Your task to perform on an android device: Search for usb-c on costco, select the first entry, add it to the cart, then select checkout. Image 0: 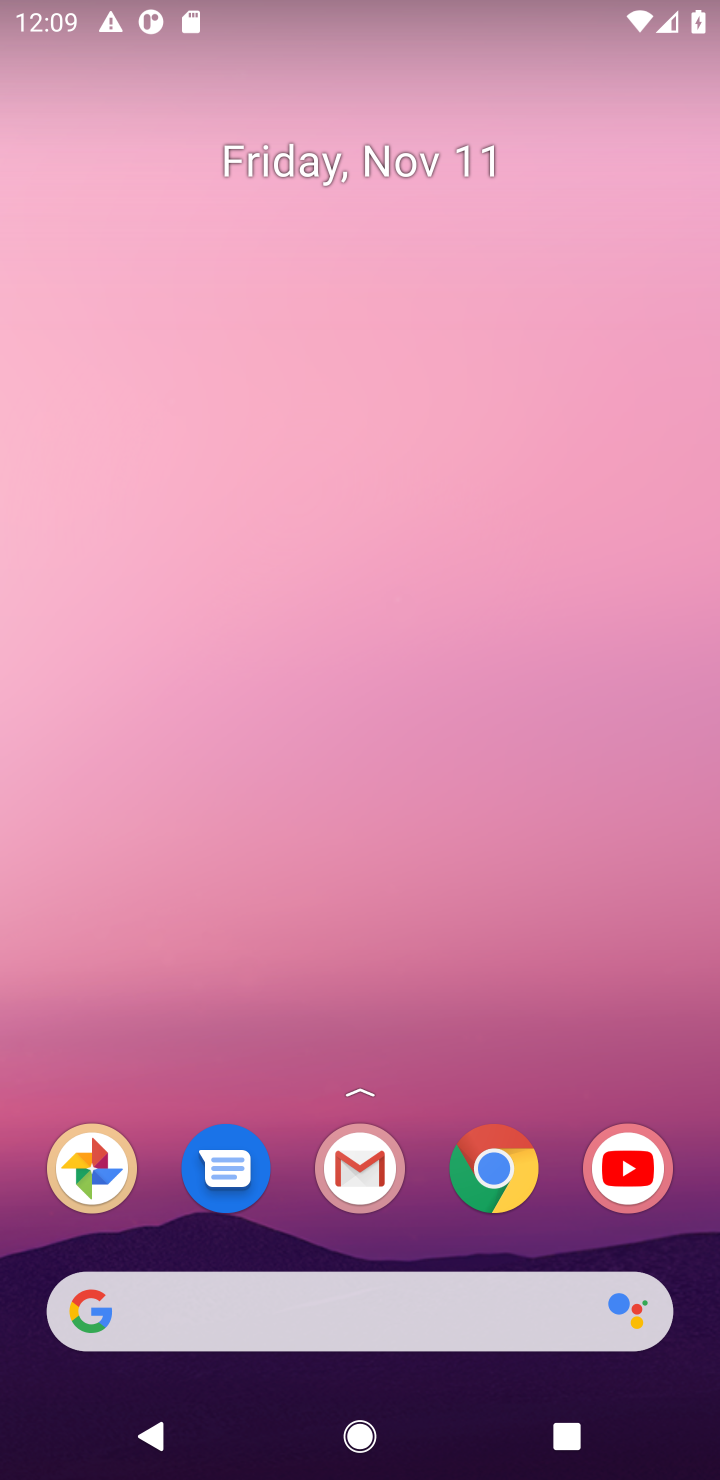
Step 0: click (483, 1171)
Your task to perform on an android device: Search for usb-c on costco, select the first entry, add it to the cart, then select checkout. Image 1: 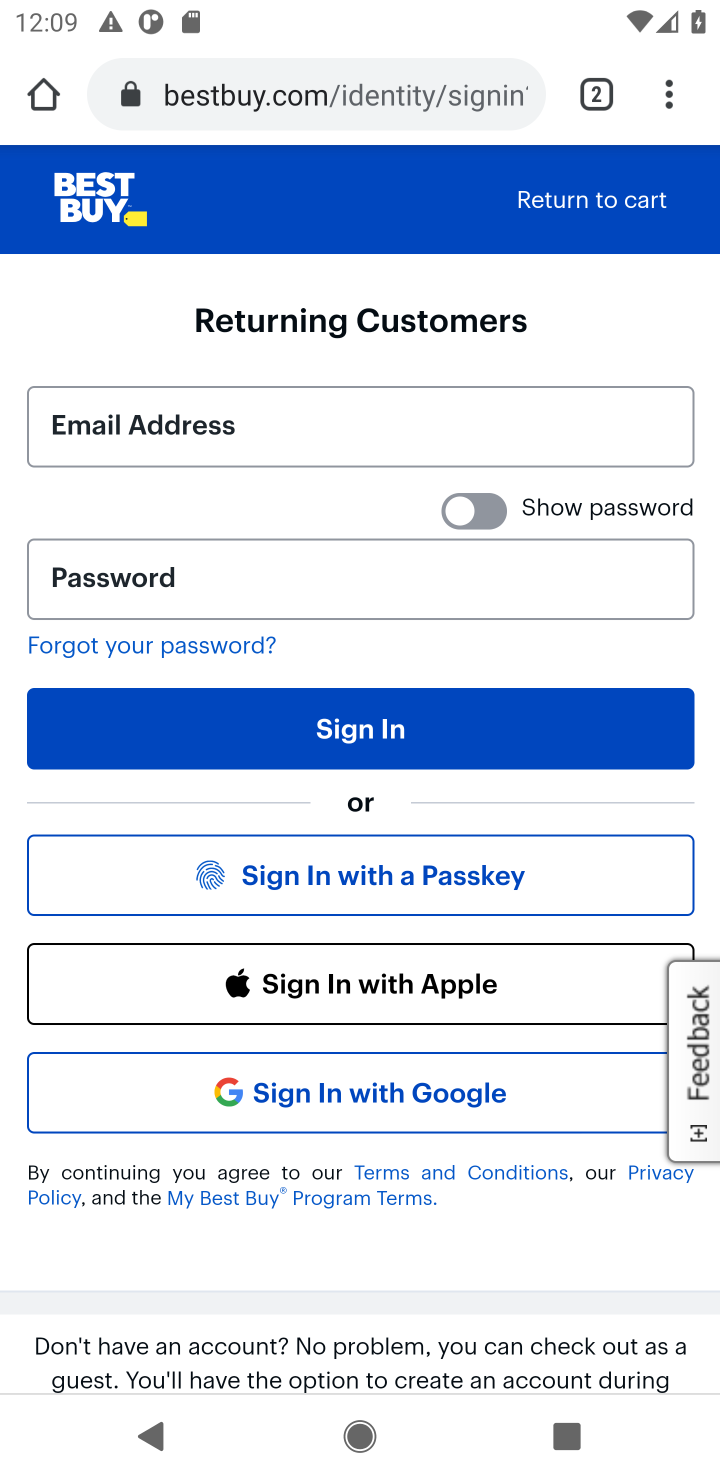
Step 1: click (314, 95)
Your task to perform on an android device: Search for usb-c on costco, select the first entry, add it to the cart, then select checkout. Image 2: 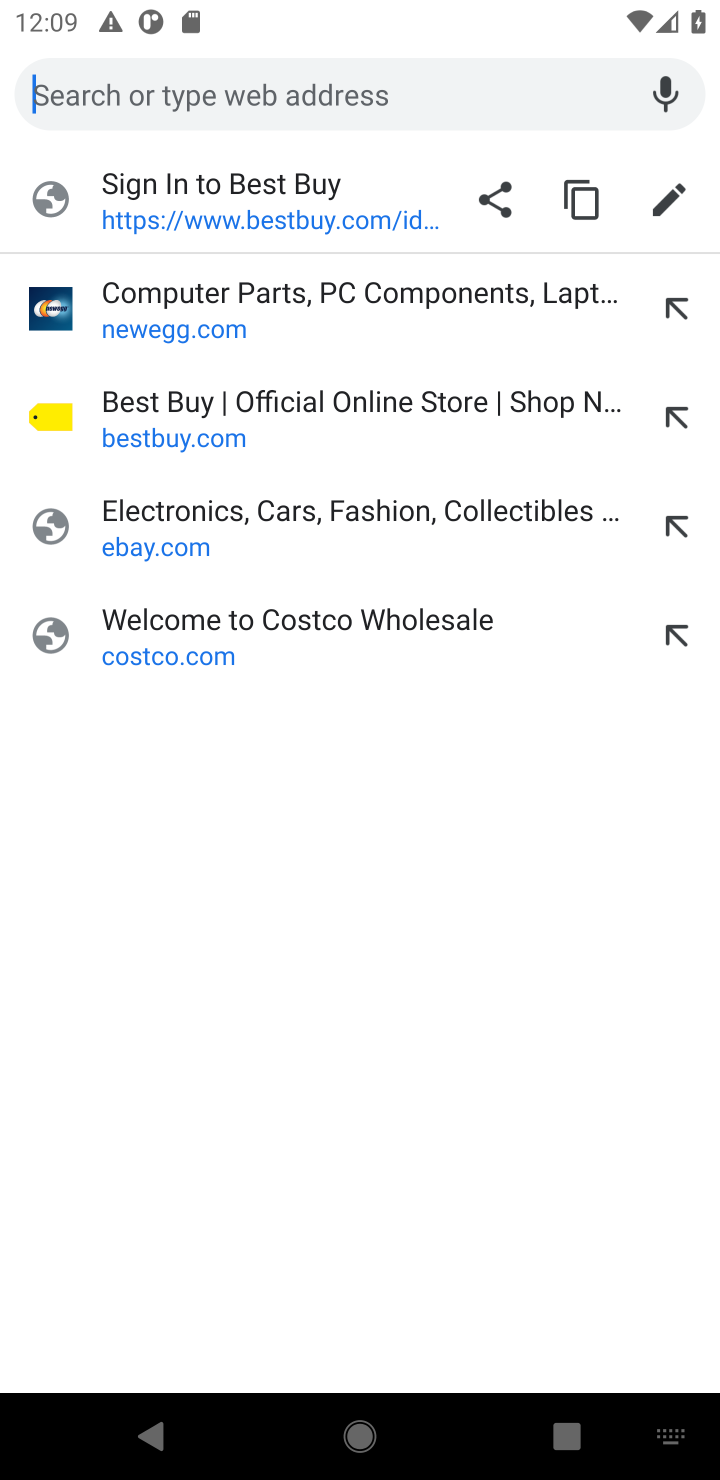
Step 2: click (158, 632)
Your task to perform on an android device: Search for usb-c on costco, select the first entry, add it to the cart, then select checkout. Image 3: 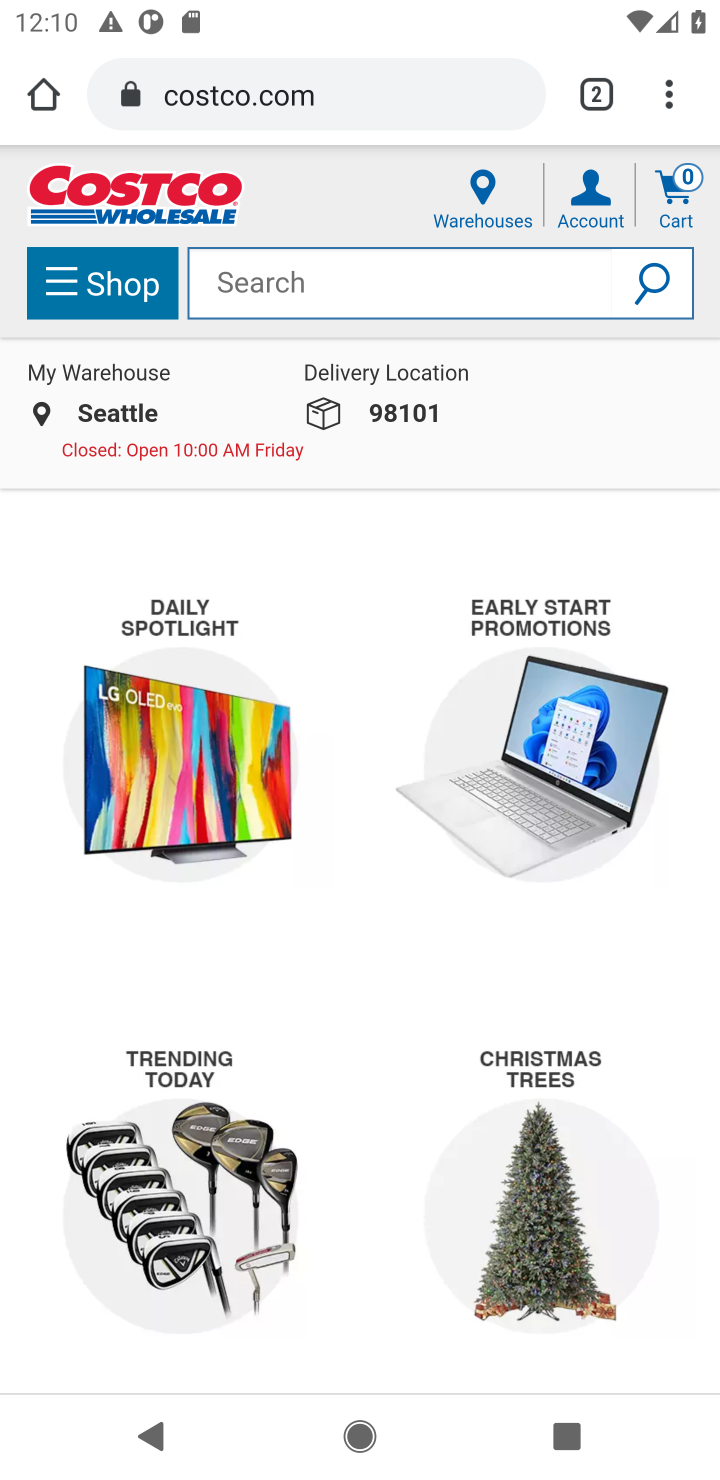
Step 3: click (259, 295)
Your task to perform on an android device: Search for usb-c on costco, select the first entry, add it to the cart, then select checkout. Image 4: 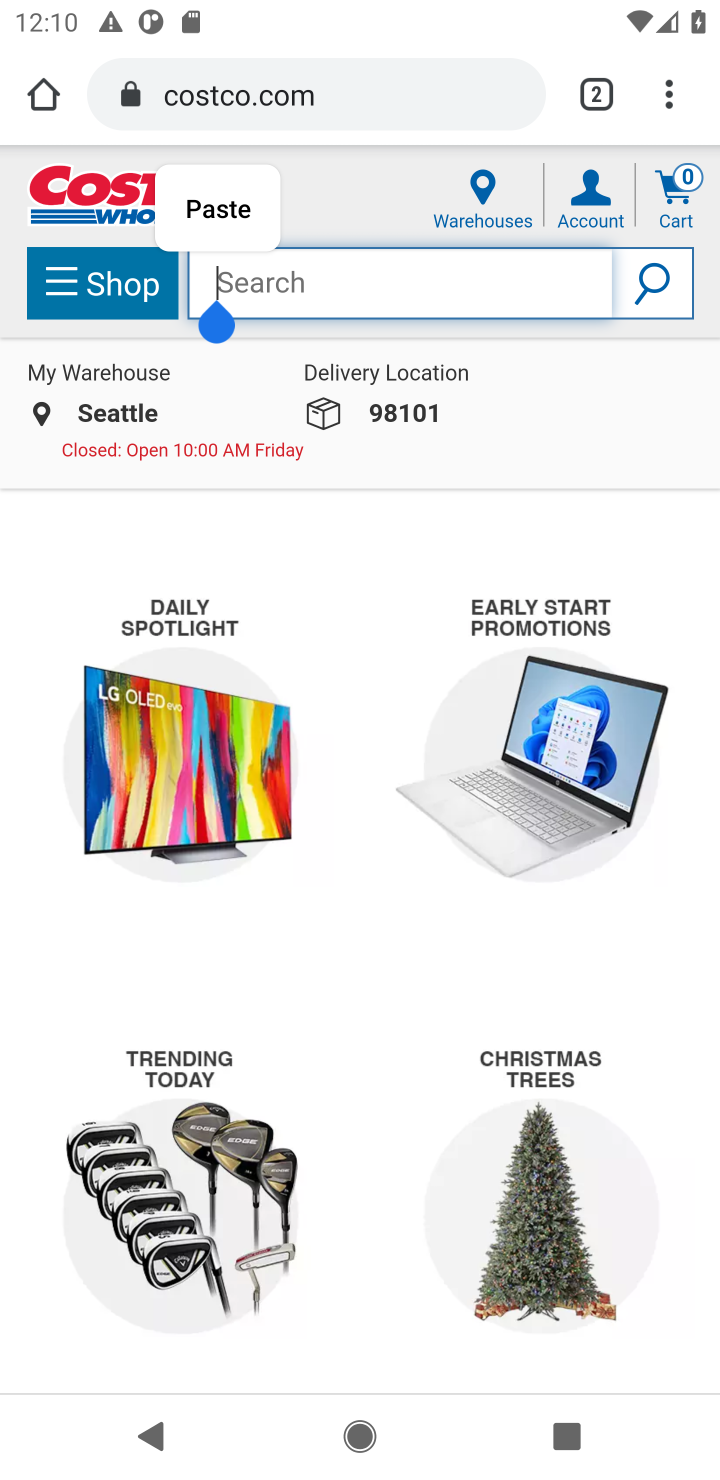
Step 4: type "usb-c"
Your task to perform on an android device: Search for usb-c on costco, select the first entry, add it to the cart, then select checkout. Image 5: 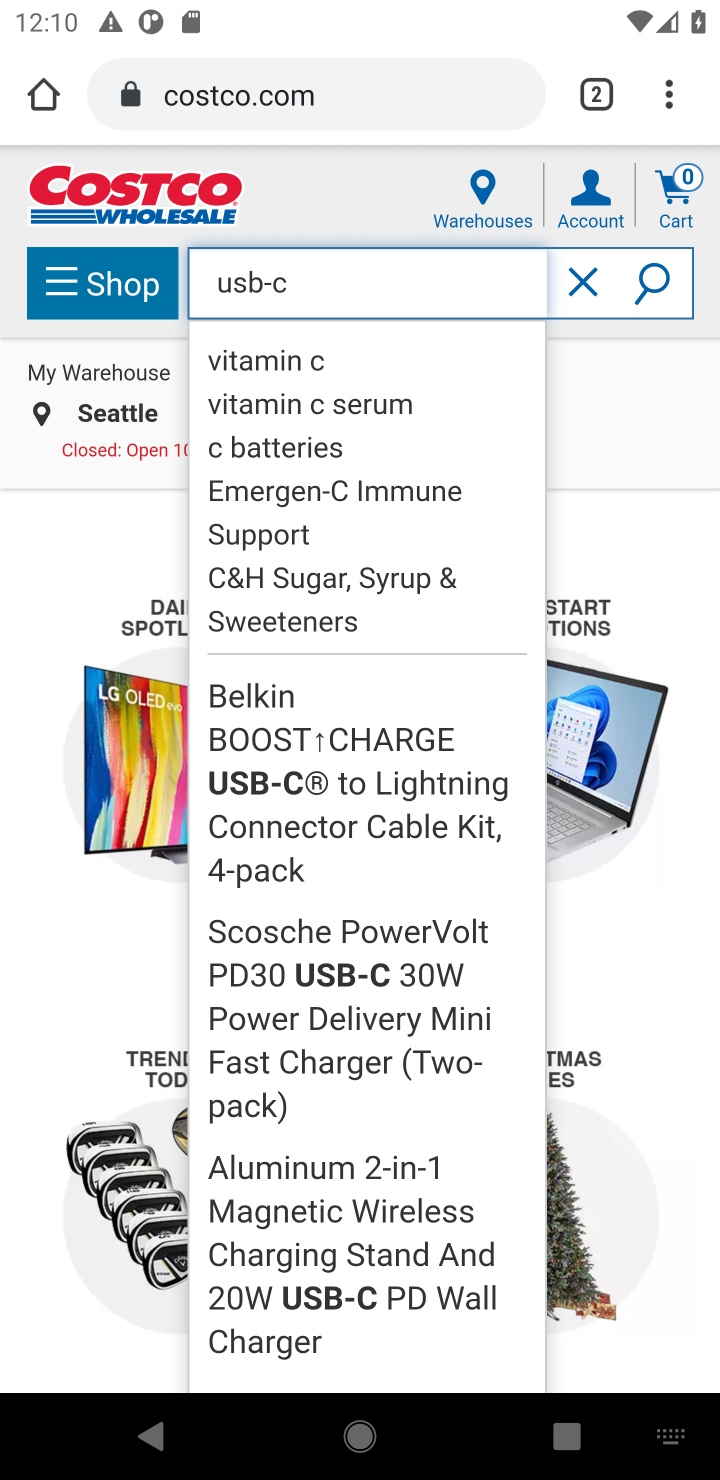
Step 5: click (660, 297)
Your task to perform on an android device: Search for usb-c on costco, select the first entry, add it to the cart, then select checkout. Image 6: 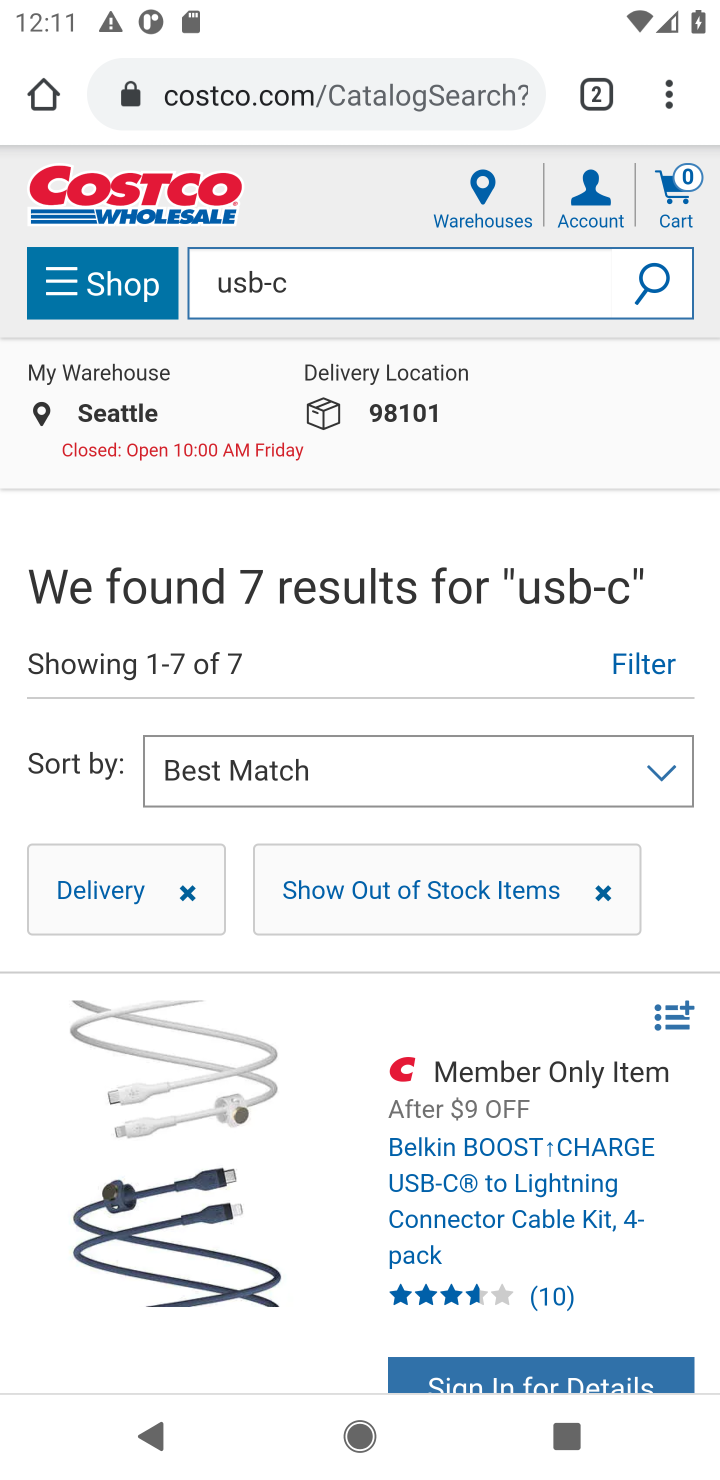
Step 6: drag from (302, 1097) to (302, 711)
Your task to perform on an android device: Search for usb-c on costco, select the first entry, add it to the cart, then select checkout. Image 7: 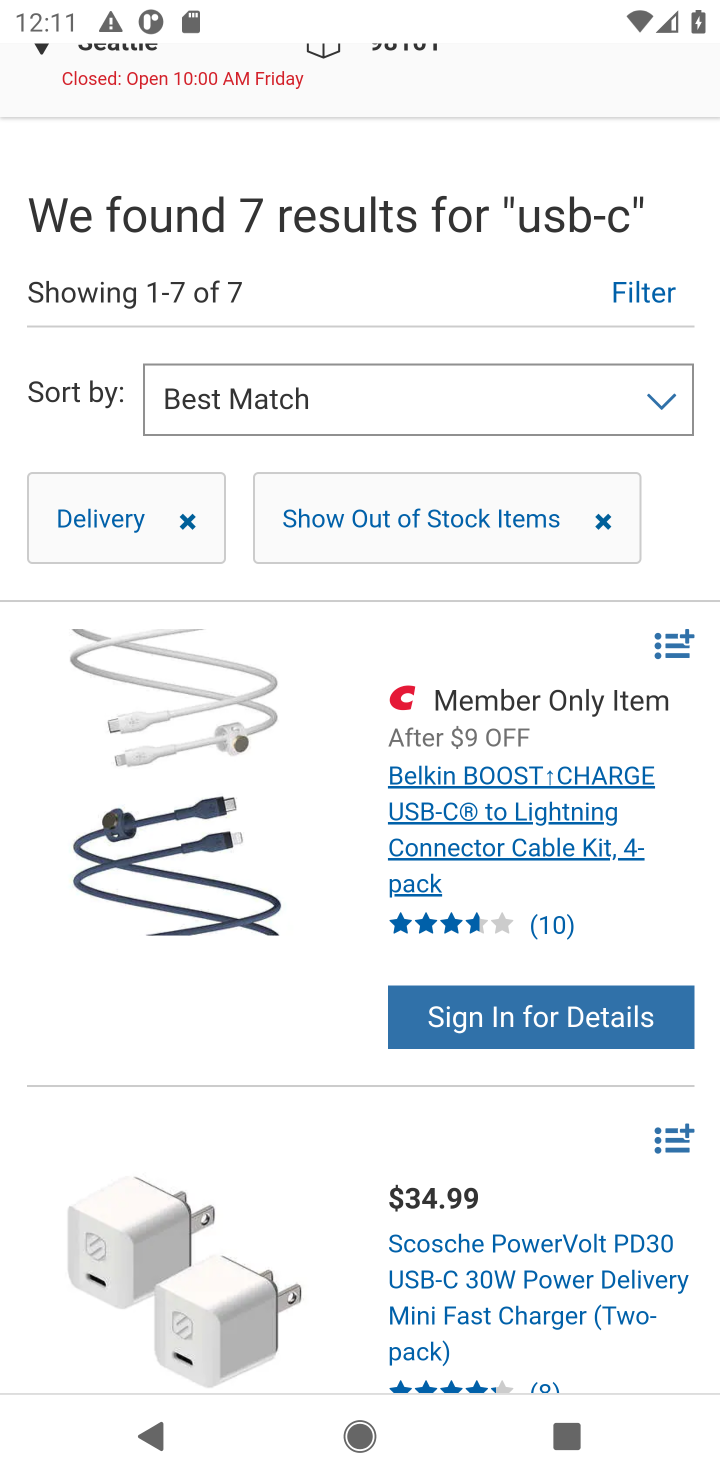
Step 7: click (233, 805)
Your task to perform on an android device: Search for usb-c on costco, select the first entry, add it to the cart, then select checkout. Image 8: 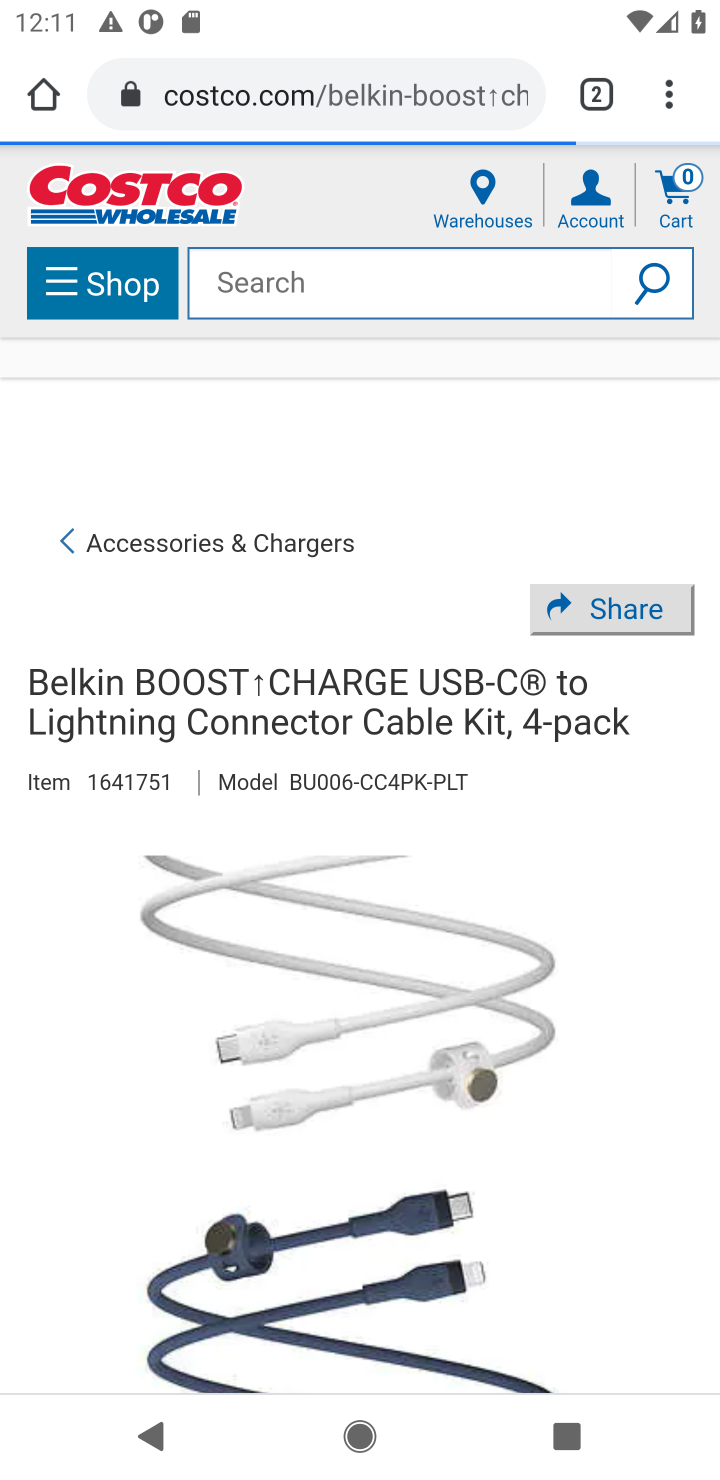
Step 8: task complete